Your task to perform on an android device: Check the weather Image 0: 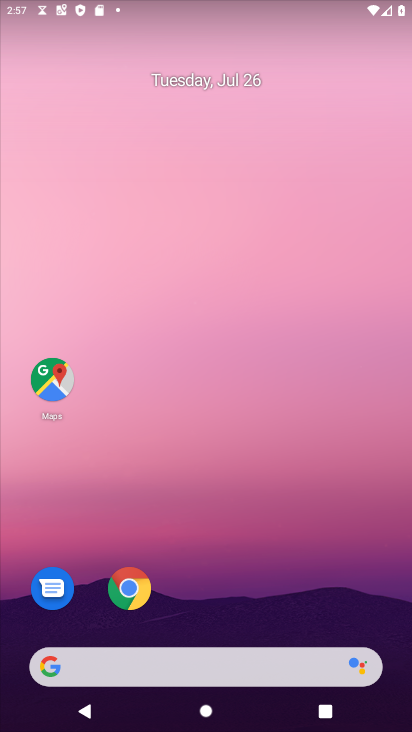
Step 0: drag from (240, 453) to (245, 87)
Your task to perform on an android device: Check the weather Image 1: 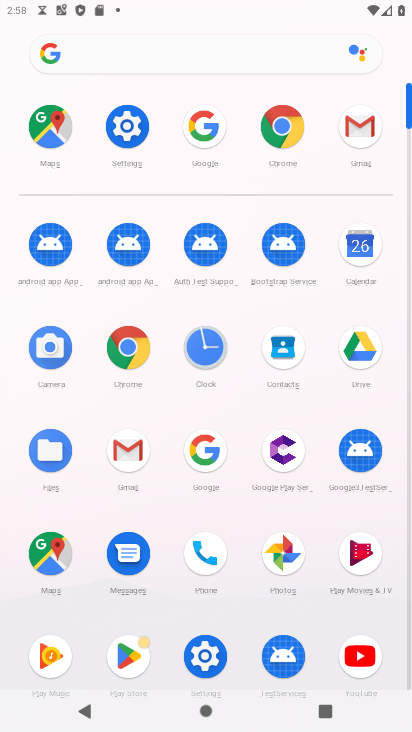
Step 1: click (195, 450)
Your task to perform on an android device: Check the weather Image 2: 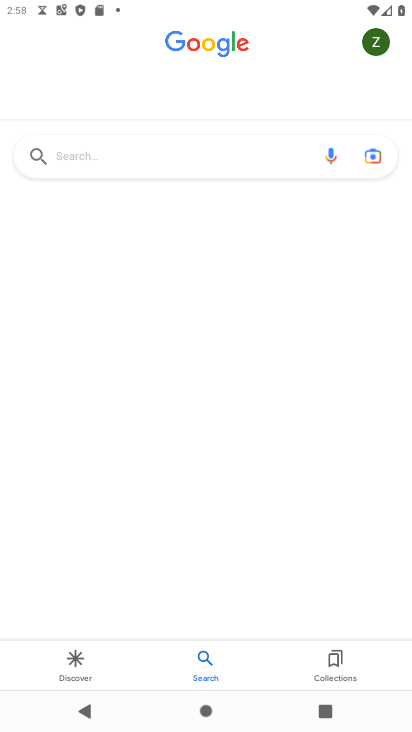
Step 2: click (103, 150)
Your task to perform on an android device: Check the weather Image 3: 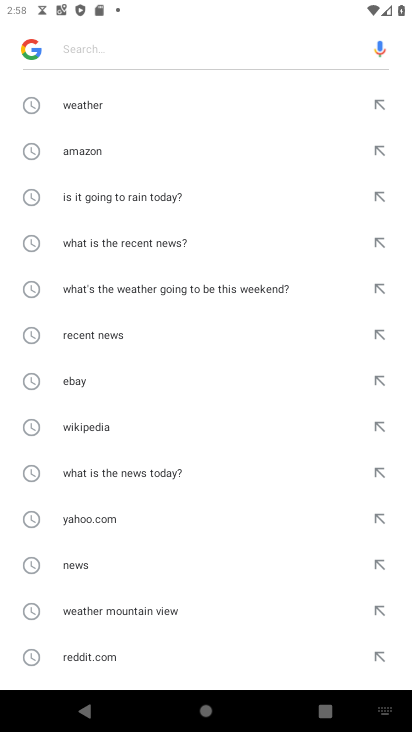
Step 3: click (85, 111)
Your task to perform on an android device: Check the weather Image 4: 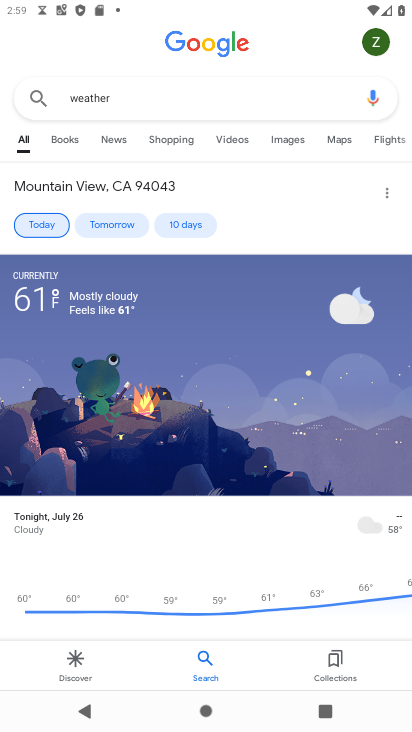
Step 4: task complete